Your task to perform on an android device: Go to notification settings Image 0: 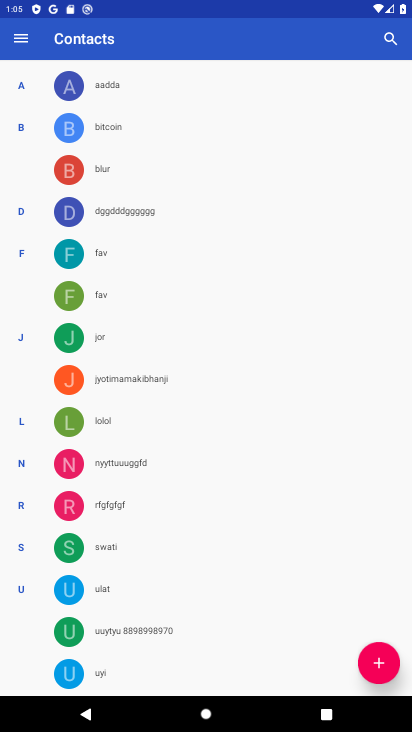
Step 0: press home button
Your task to perform on an android device: Go to notification settings Image 1: 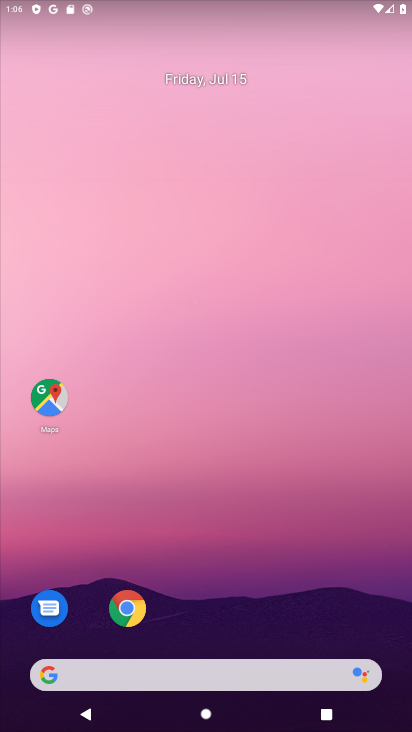
Step 1: drag from (142, 714) to (162, 0)
Your task to perform on an android device: Go to notification settings Image 2: 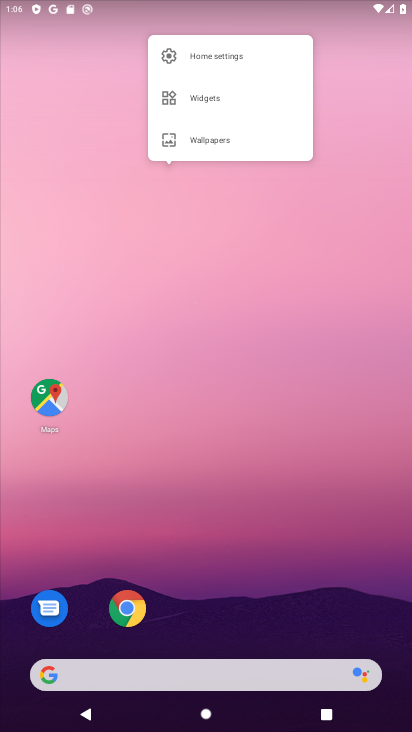
Step 2: drag from (281, 712) to (232, 94)
Your task to perform on an android device: Go to notification settings Image 3: 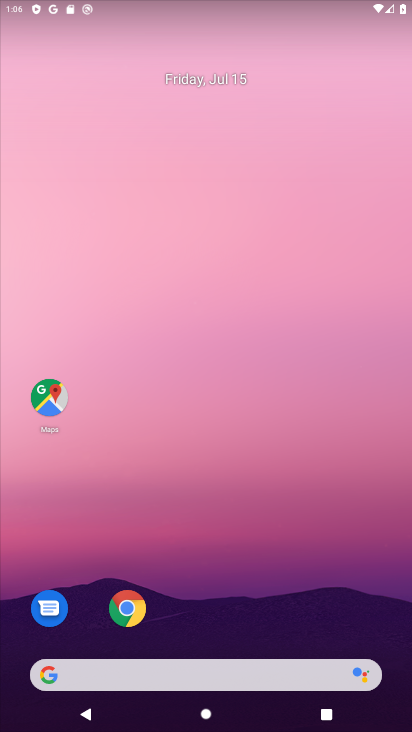
Step 3: drag from (142, 708) to (237, 18)
Your task to perform on an android device: Go to notification settings Image 4: 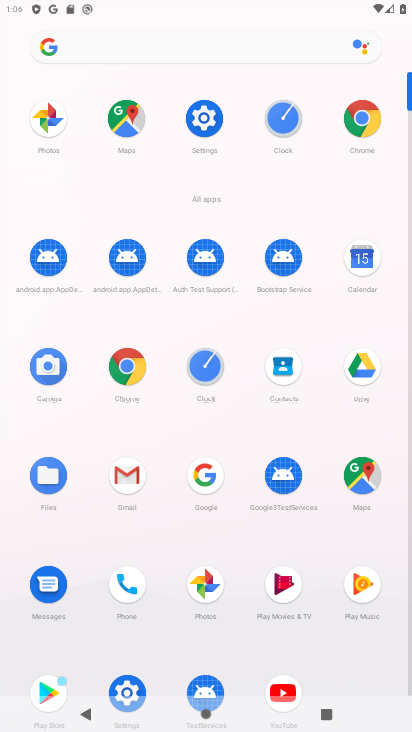
Step 4: click (206, 107)
Your task to perform on an android device: Go to notification settings Image 5: 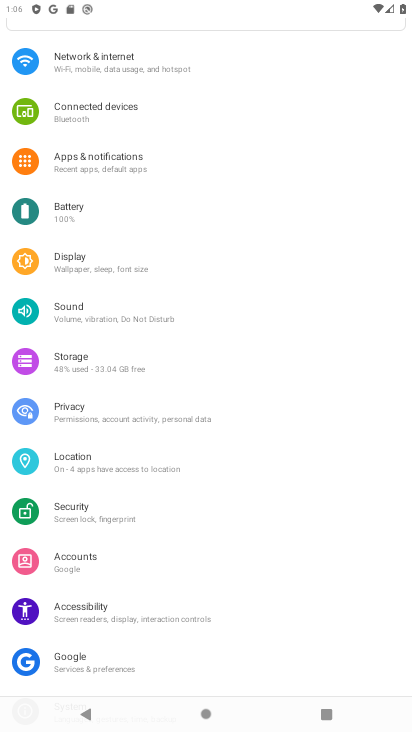
Step 5: click (116, 168)
Your task to perform on an android device: Go to notification settings Image 6: 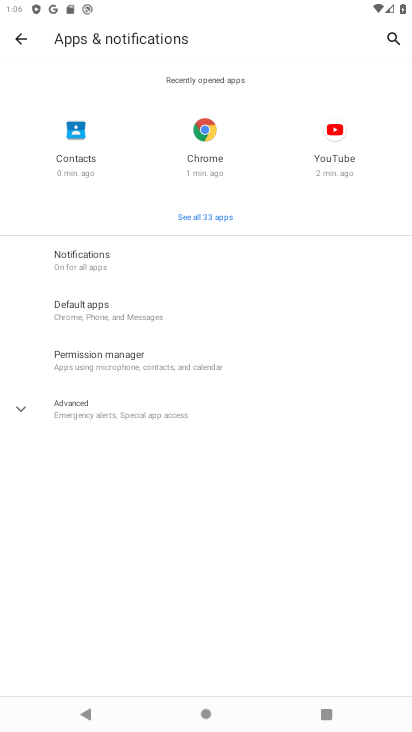
Step 6: task complete